Your task to perform on an android device: What's the weather? Image 0: 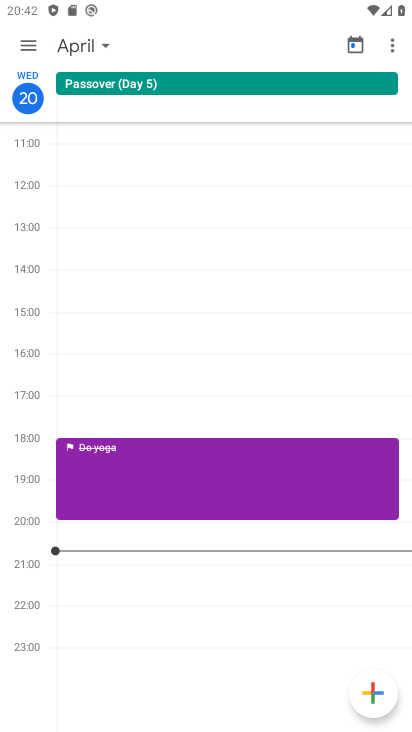
Step 0: press home button
Your task to perform on an android device: What's the weather? Image 1: 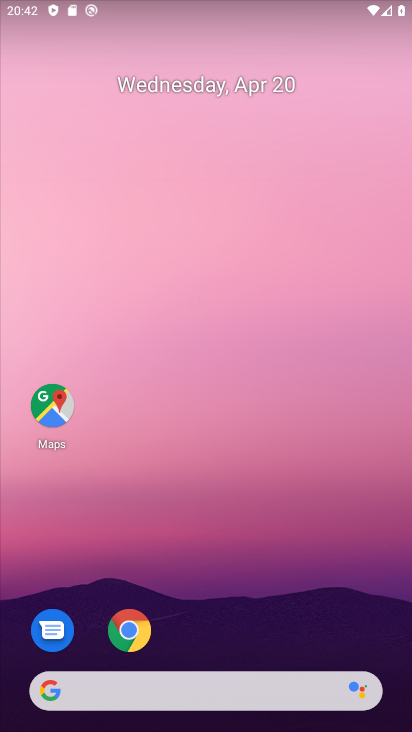
Step 1: drag from (238, 592) to (159, 123)
Your task to perform on an android device: What's the weather? Image 2: 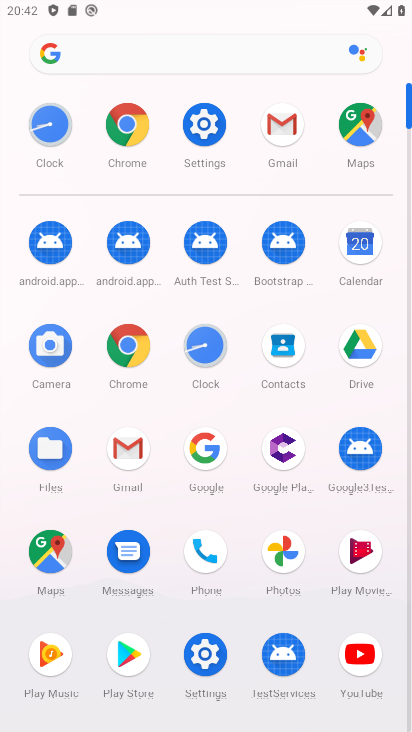
Step 2: click (201, 448)
Your task to perform on an android device: What's the weather? Image 3: 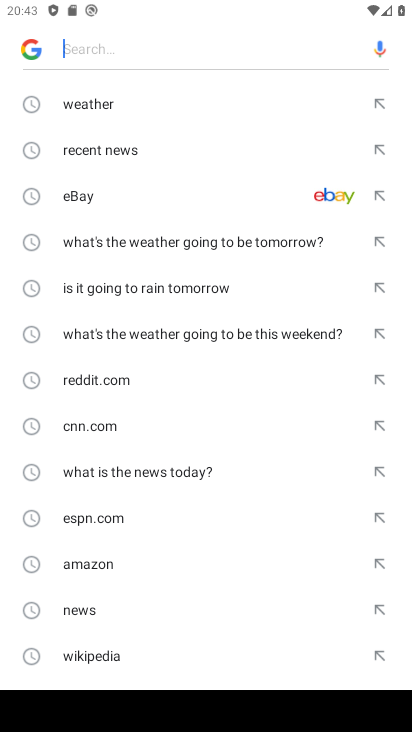
Step 3: click (126, 99)
Your task to perform on an android device: What's the weather? Image 4: 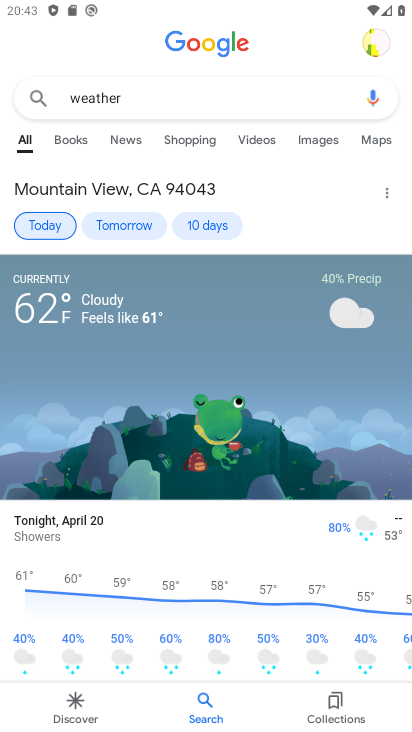
Step 4: task complete